Your task to perform on an android device: Turn on the flashlight Image 0: 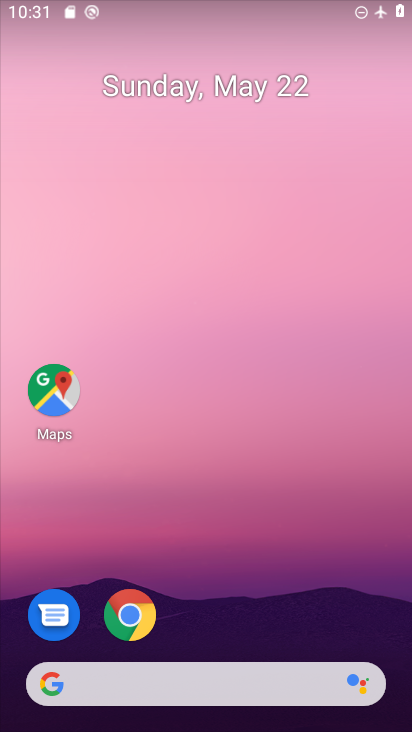
Step 0: drag from (263, 621) to (250, 56)
Your task to perform on an android device: Turn on the flashlight Image 1: 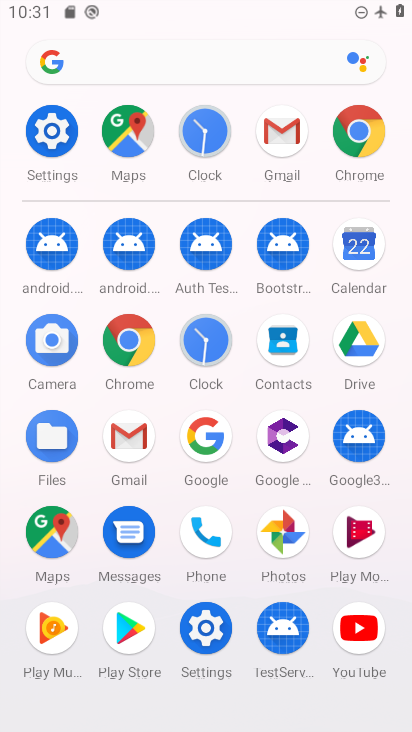
Step 1: click (54, 140)
Your task to perform on an android device: Turn on the flashlight Image 2: 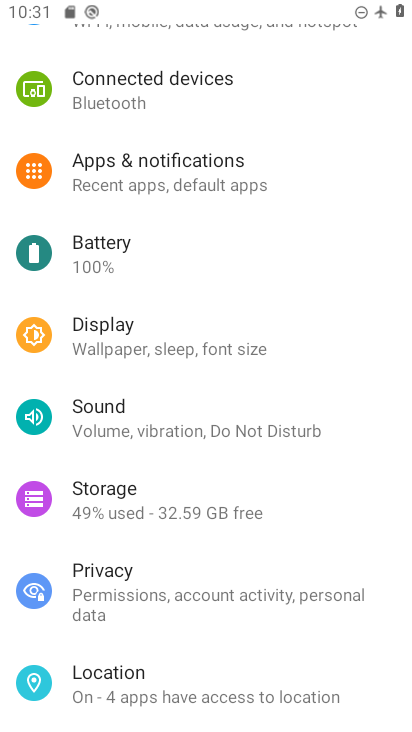
Step 2: drag from (154, 130) to (163, 376)
Your task to perform on an android device: Turn on the flashlight Image 3: 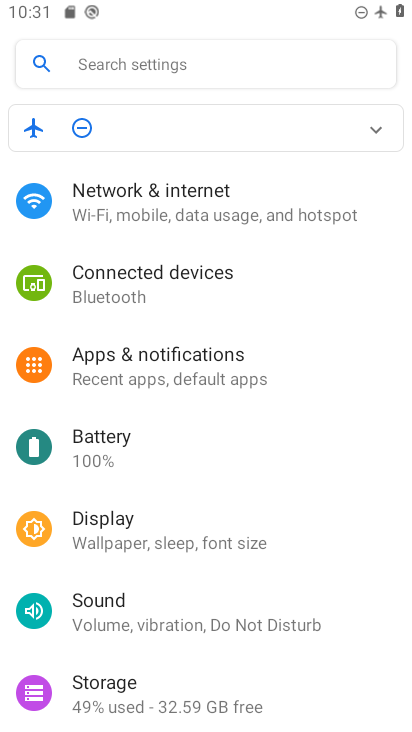
Step 3: click (114, 517)
Your task to perform on an android device: Turn on the flashlight Image 4: 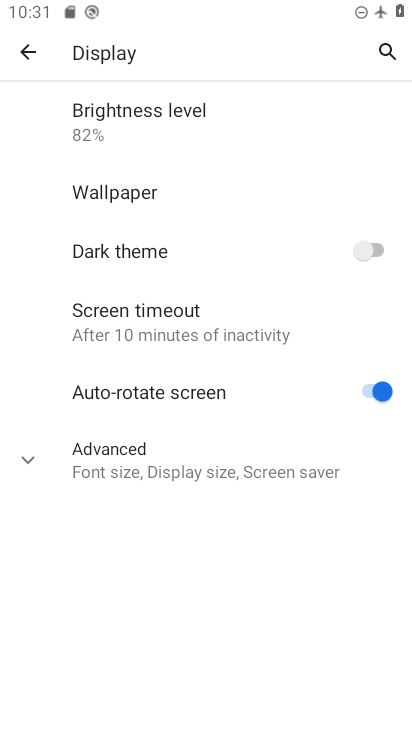
Step 4: task complete